Your task to perform on an android device: Check the weather Image 0: 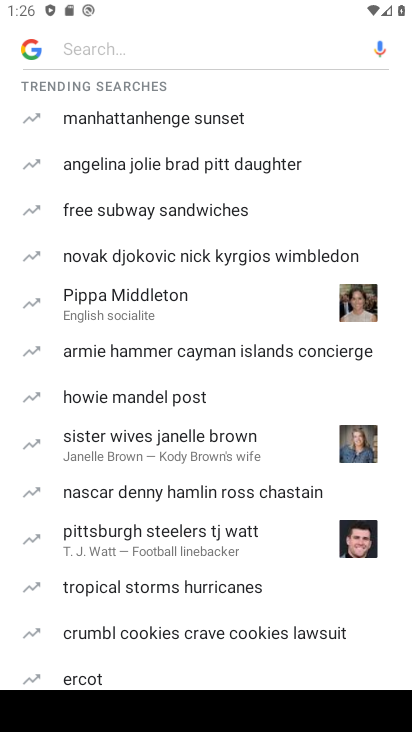
Step 0: press back button
Your task to perform on an android device: Check the weather Image 1: 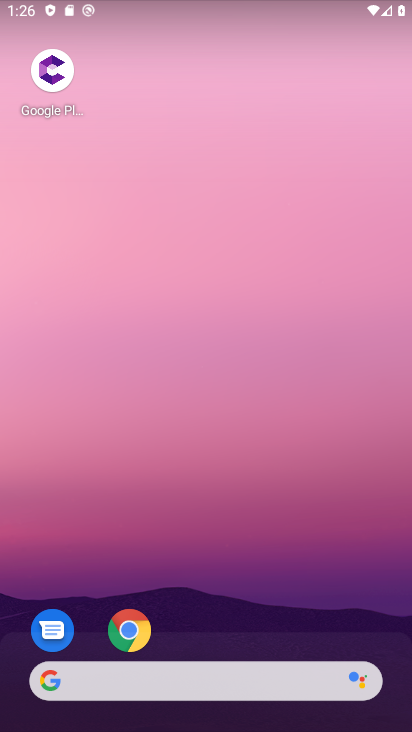
Step 1: task complete